Your task to perform on an android device: toggle notification dots Image 0: 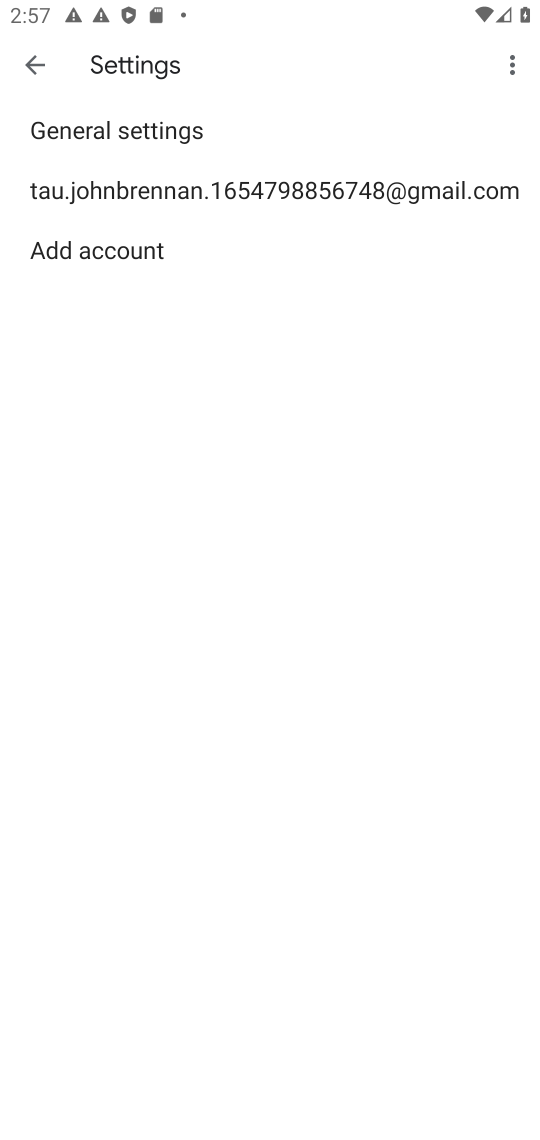
Step 0: press home button
Your task to perform on an android device: toggle notification dots Image 1: 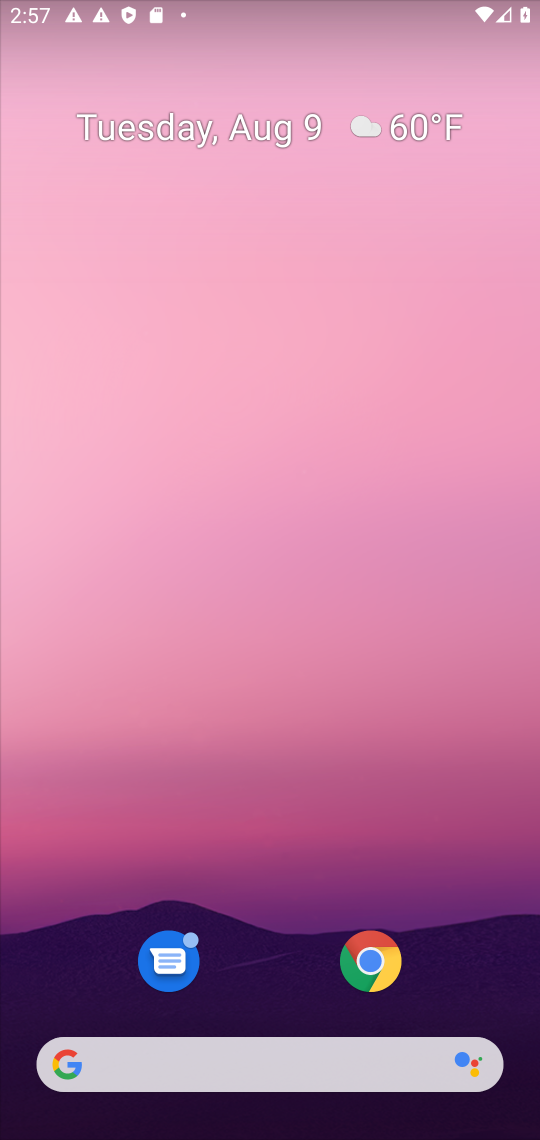
Step 1: drag from (222, 1037) to (222, 314)
Your task to perform on an android device: toggle notification dots Image 2: 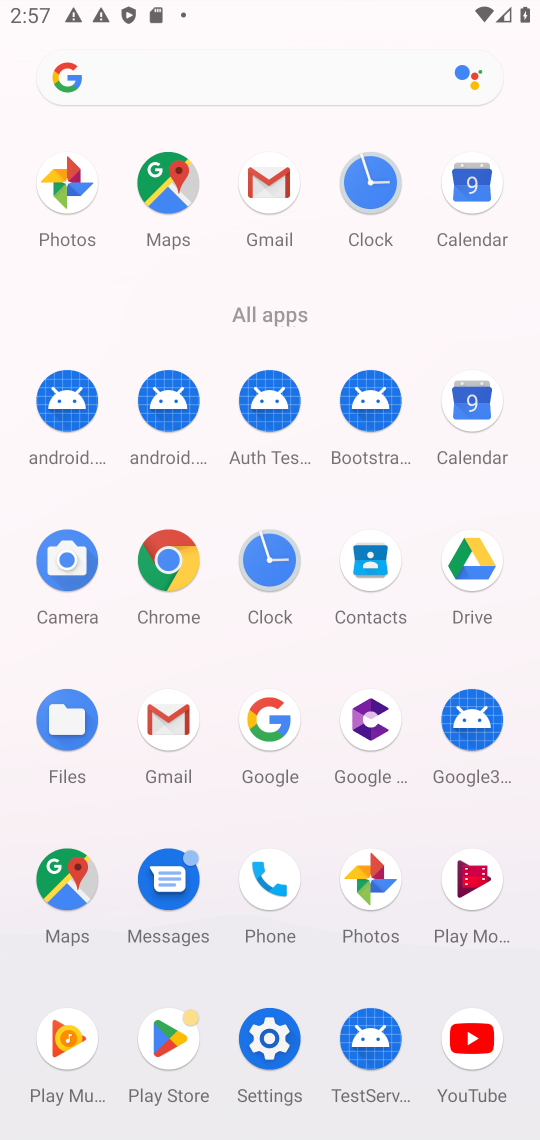
Step 2: click (267, 1039)
Your task to perform on an android device: toggle notification dots Image 3: 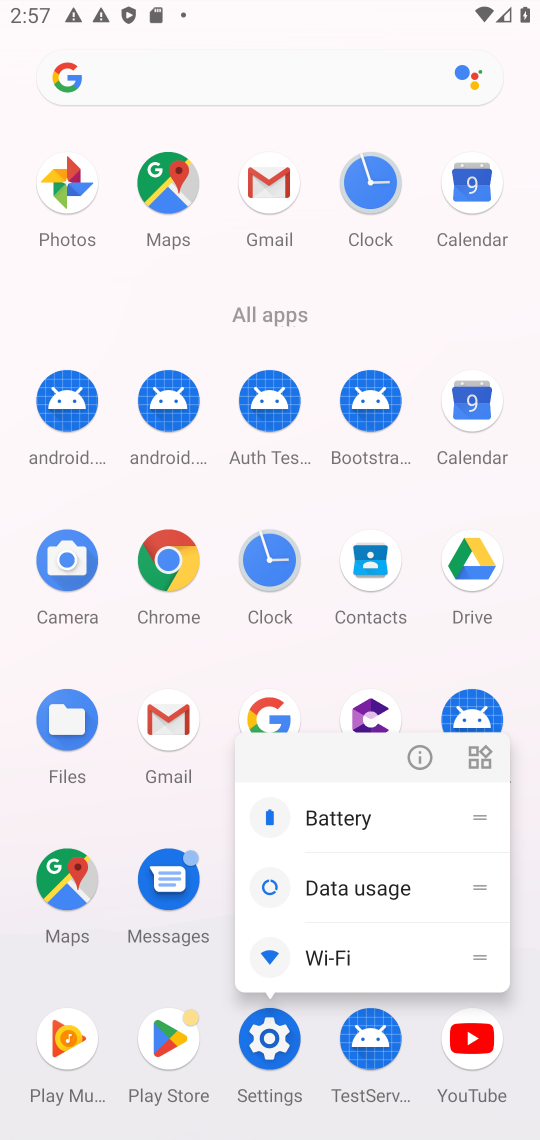
Step 3: click (267, 1039)
Your task to perform on an android device: toggle notification dots Image 4: 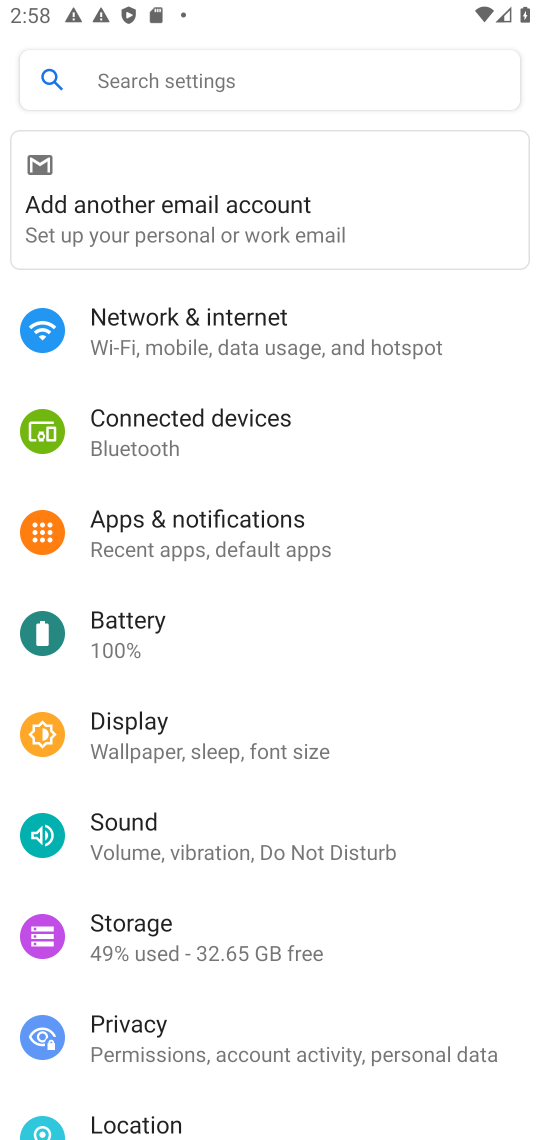
Step 4: click (206, 517)
Your task to perform on an android device: toggle notification dots Image 5: 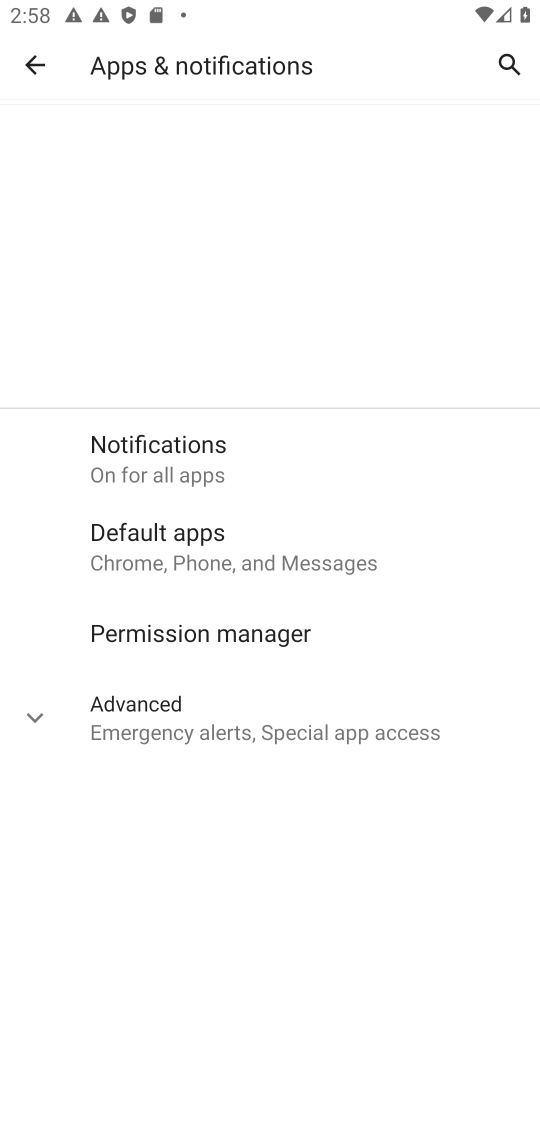
Step 5: click (116, 710)
Your task to perform on an android device: toggle notification dots Image 6: 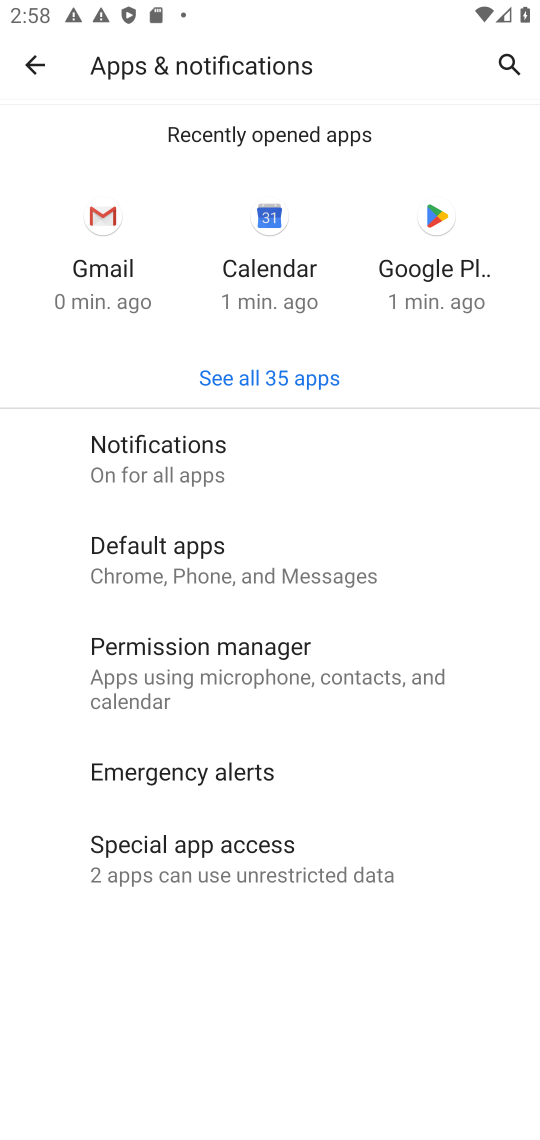
Step 6: drag from (152, 812) to (187, 296)
Your task to perform on an android device: toggle notification dots Image 7: 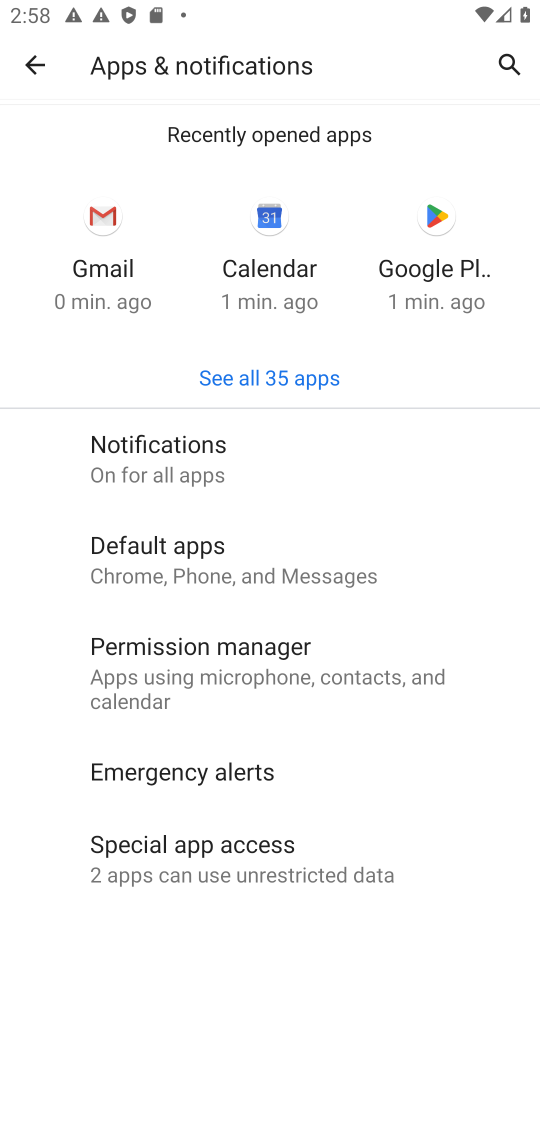
Step 7: click (159, 464)
Your task to perform on an android device: toggle notification dots Image 8: 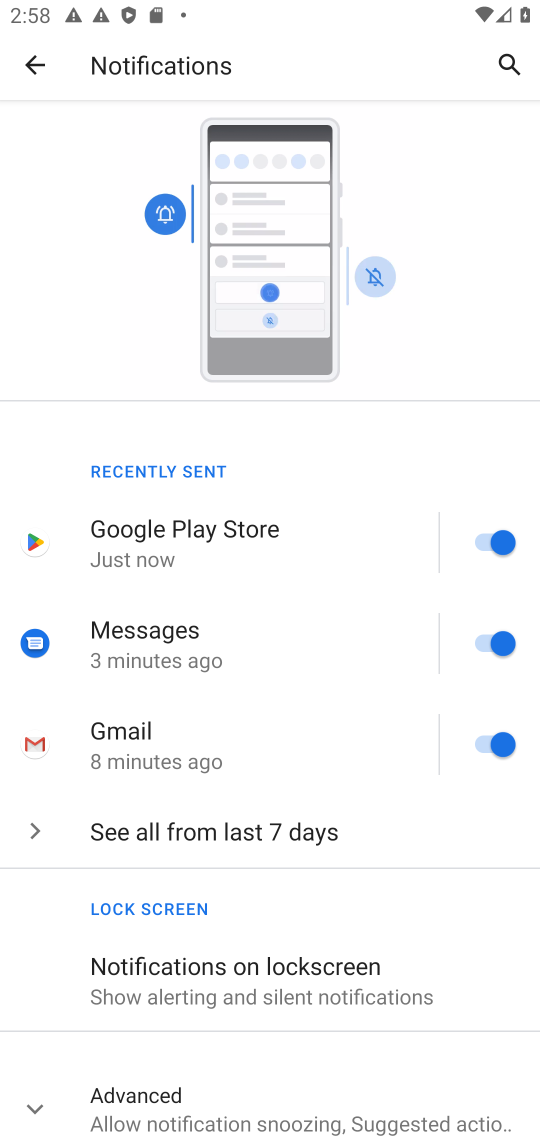
Step 8: drag from (222, 1052) to (252, 459)
Your task to perform on an android device: toggle notification dots Image 9: 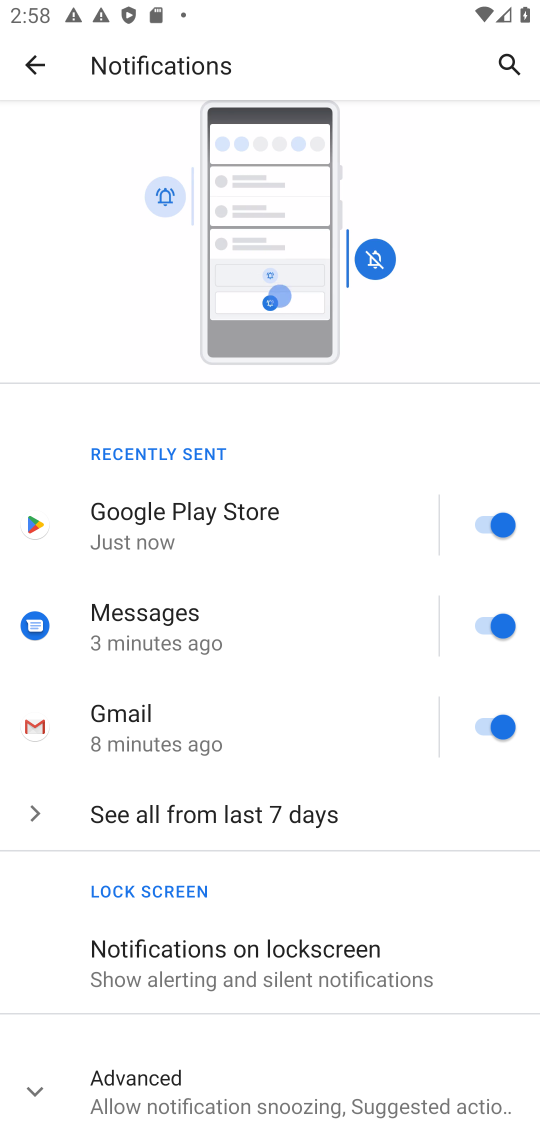
Step 9: click (158, 1105)
Your task to perform on an android device: toggle notification dots Image 10: 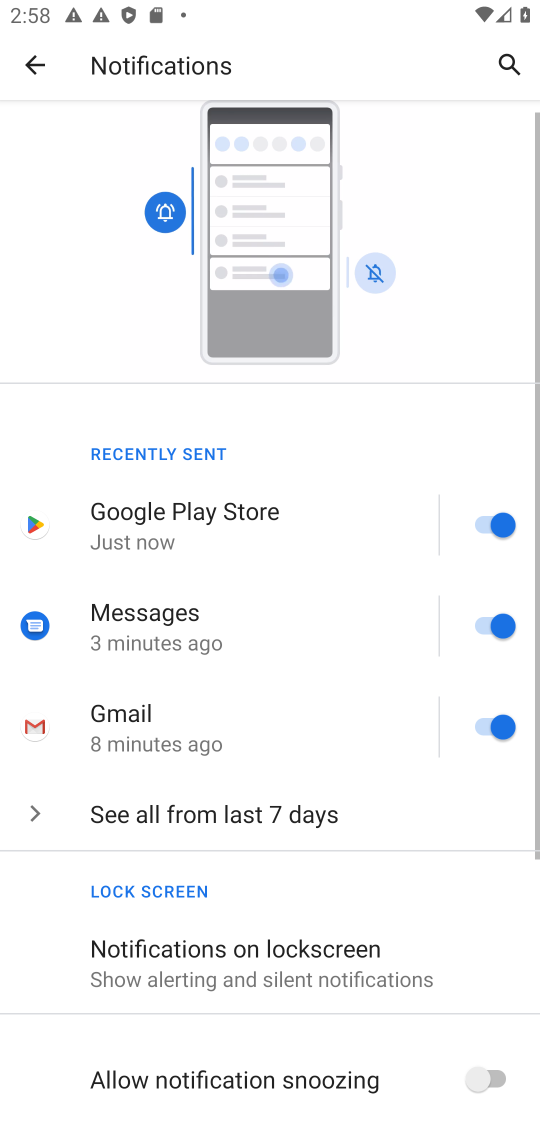
Step 10: drag from (332, 1007) to (328, 463)
Your task to perform on an android device: toggle notification dots Image 11: 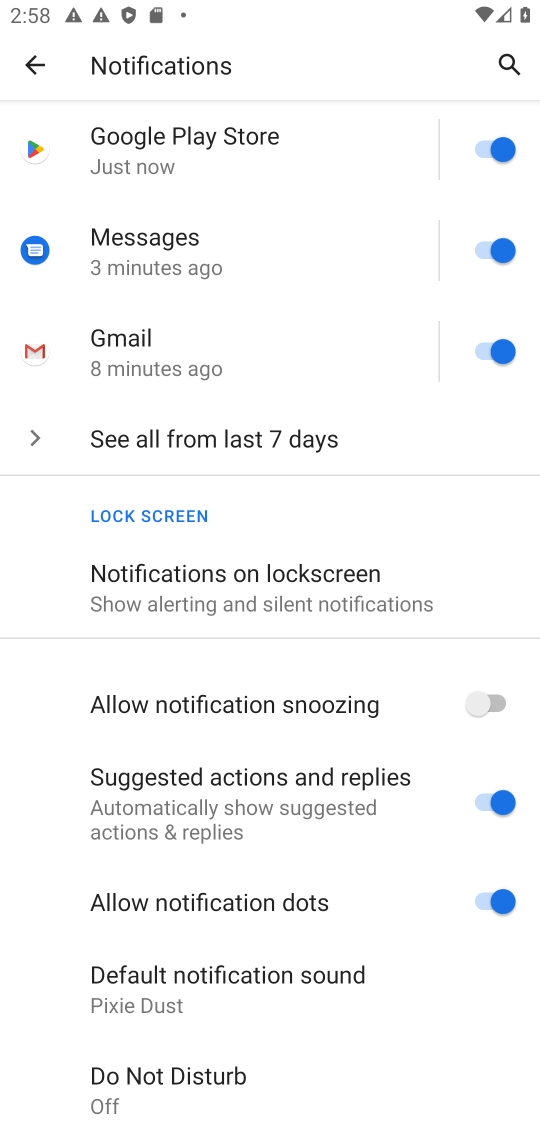
Step 11: click (467, 901)
Your task to perform on an android device: toggle notification dots Image 12: 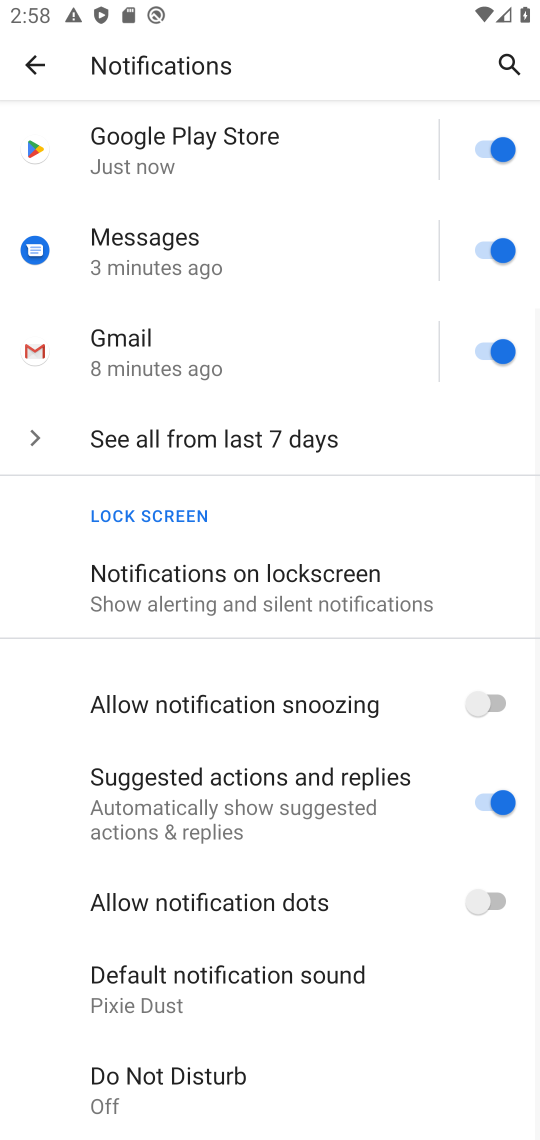
Step 12: task complete